Your task to perform on an android device: turn pop-ups on in chrome Image 0: 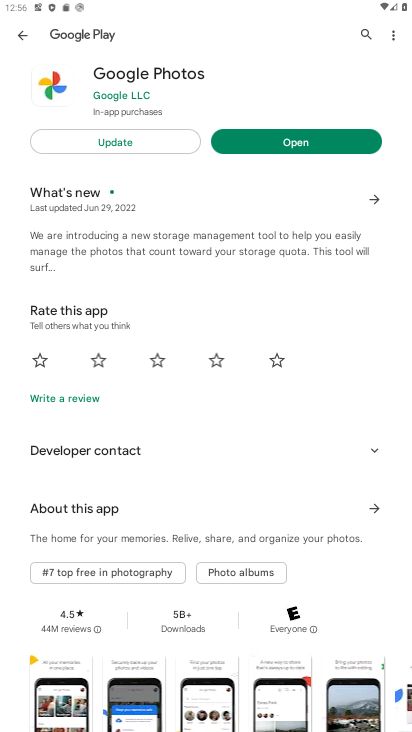
Step 0: press home button
Your task to perform on an android device: turn pop-ups on in chrome Image 1: 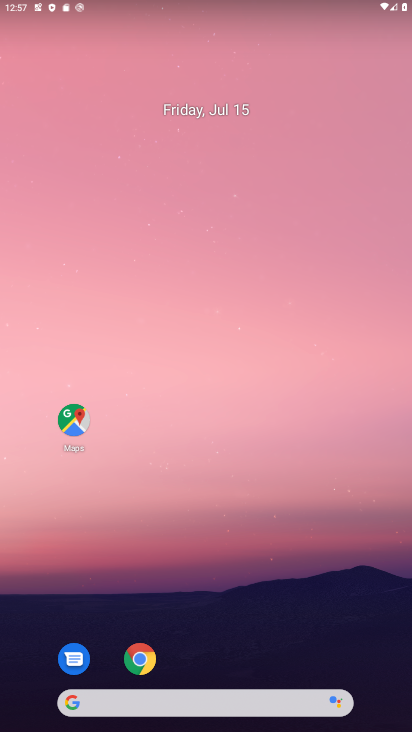
Step 1: click (142, 648)
Your task to perform on an android device: turn pop-ups on in chrome Image 2: 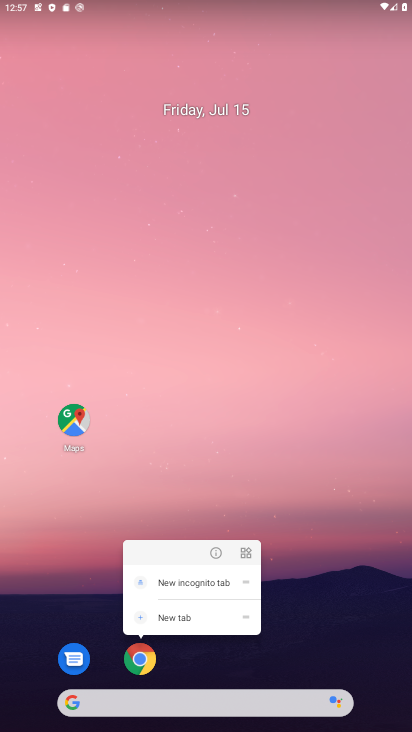
Step 2: click (135, 653)
Your task to perform on an android device: turn pop-ups on in chrome Image 3: 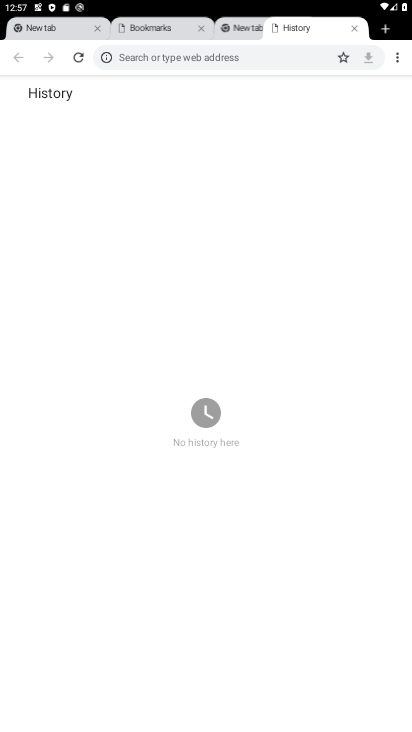
Step 3: click (392, 60)
Your task to perform on an android device: turn pop-ups on in chrome Image 4: 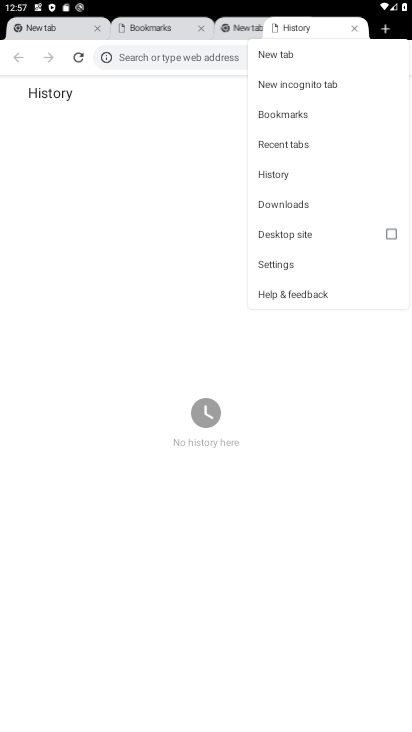
Step 4: click (288, 265)
Your task to perform on an android device: turn pop-ups on in chrome Image 5: 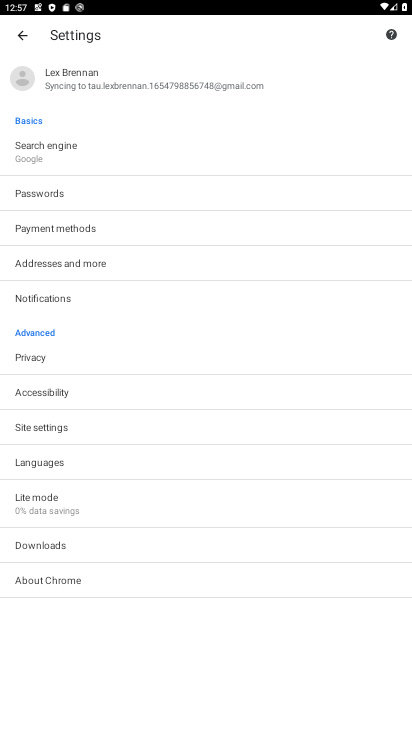
Step 5: click (72, 428)
Your task to perform on an android device: turn pop-ups on in chrome Image 6: 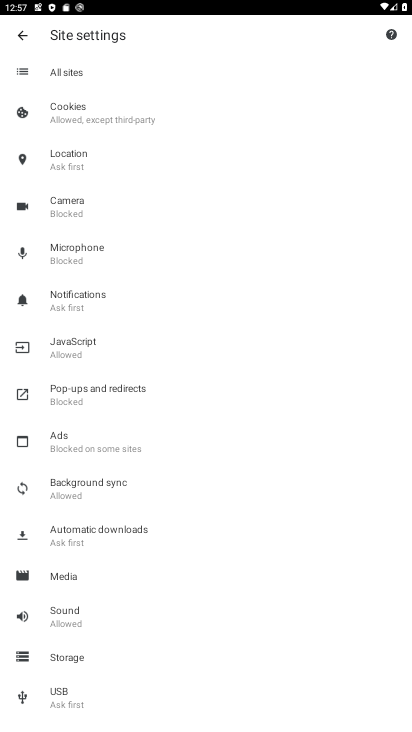
Step 6: click (77, 383)
Your task to perform on an android device: turn pop-ups on in chrome Image 7: 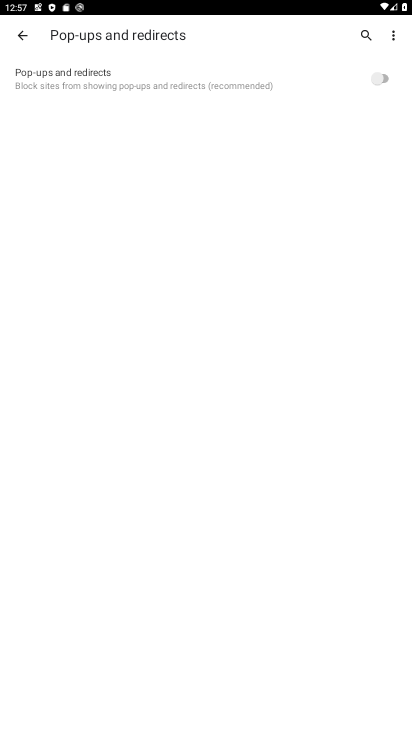
Step 7: click (388, 77)
Your task to perform on an android device: turn pop-ups on in chrome Image 8: 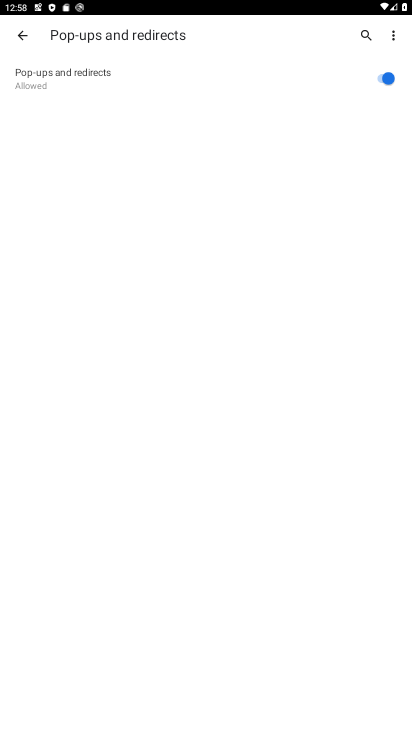
Step 8: task complete